Your task to perform on an android device: turn on javascript in the chrome app Image 0: 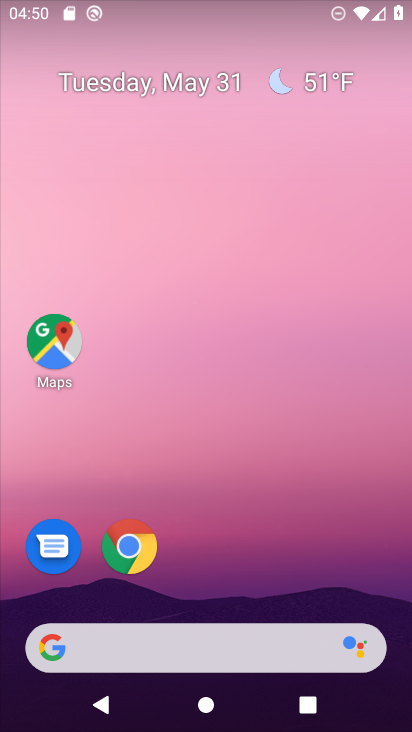
Step 0: click (133, 557)
Your task to perform on an android device: turn on javascript in the chrome app Image 1: 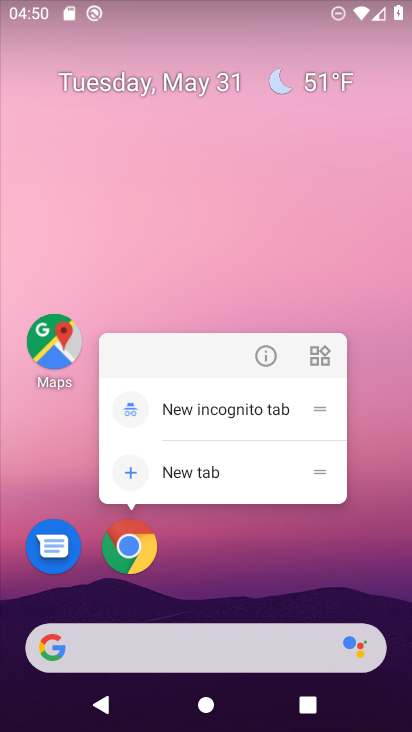
Step 1: click (132, 544)
Your task to perform on an android device: turn on javascript in the chrome app Image 2: 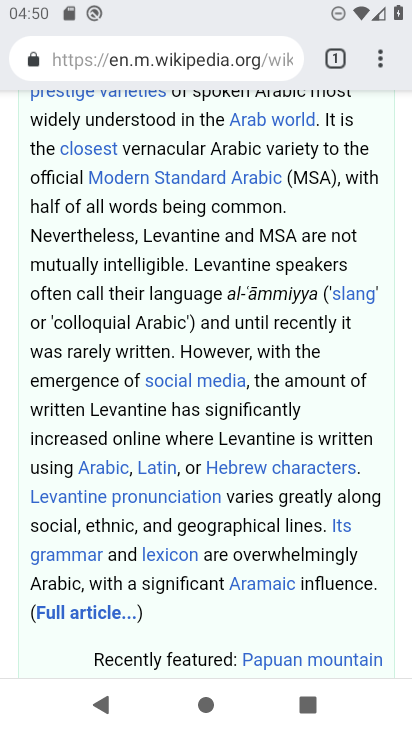
Step 2: click (377, 58)
Your task to perform on an android device: turn on javascript in the chrome app Image 3: 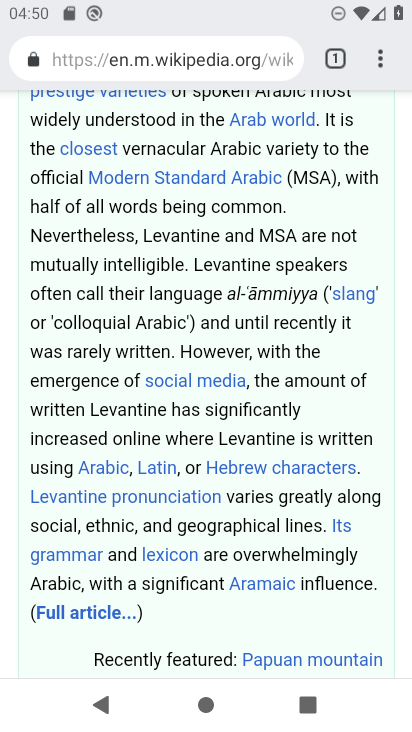
Step 3: click (384, 65)
Your task to perform on an android device: turn on javascript in the chrome app Image 4: 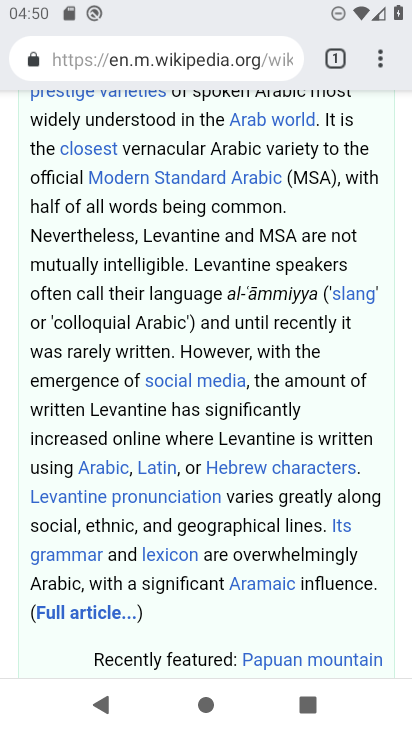
Step 4: click (380, 62)
Your task to perform on an android device: turn on javascript in the chrome app Image 5: 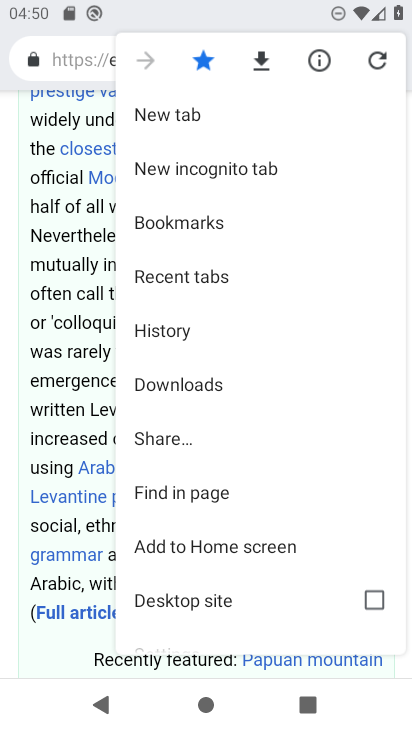
Step 5: drag from (178, 608) to (222, 309)
Your task to perform on an android device: turn on javascript in the chrome app Image 6: 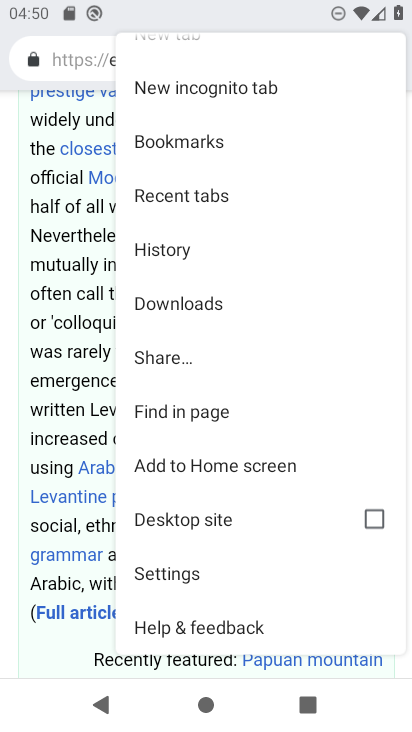
Step 6: click (171, 582)
Your task to perform on an android device: turn on javascript in the chrome app Image 7: 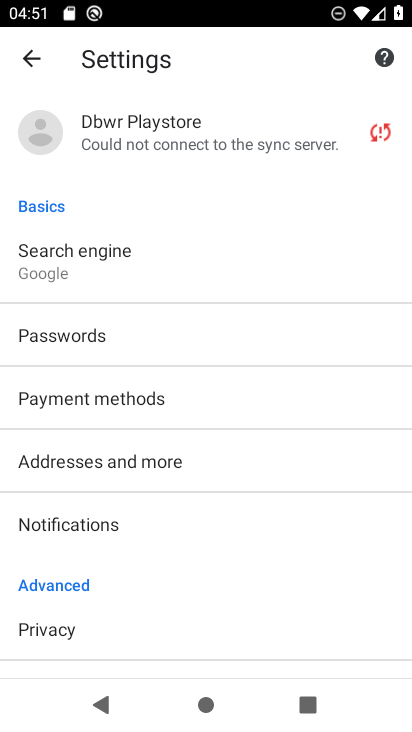
Step 7: drag from (99, 597) to (160, 340)
Your task to perform on an android device: turn on javascript in the chrome app Image 8: 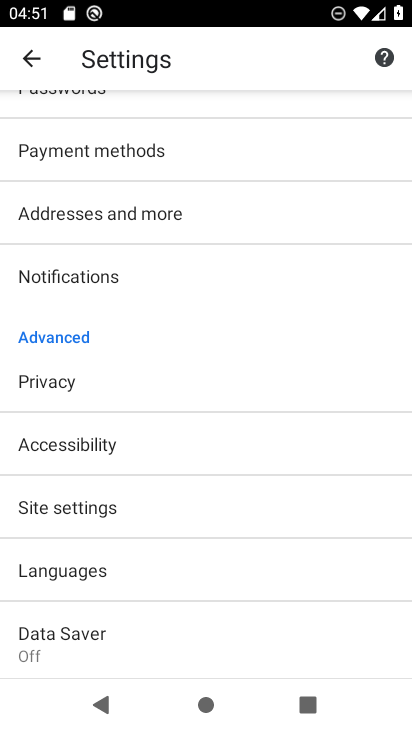
Step 8: click (77, 508)
Your task to perform on an android device: turn on javascript in the chrome app Image 9: 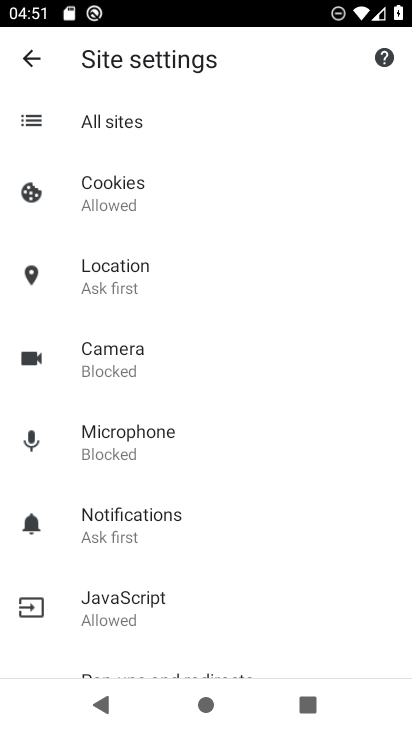
Step 9: drag from (166, 544) to (185, 369)
Your task to perform on an android device: turn on javascript in the chrome app Image 10: 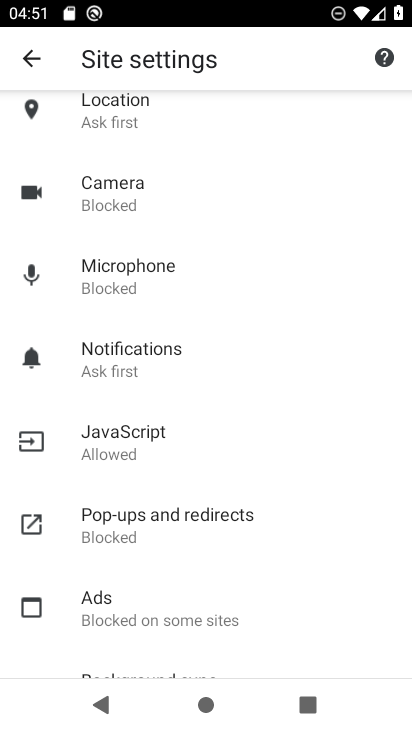
Step 10: click (152, 444)
Your task to perform on an android device: turn on javascript in the chrome app Image 11: 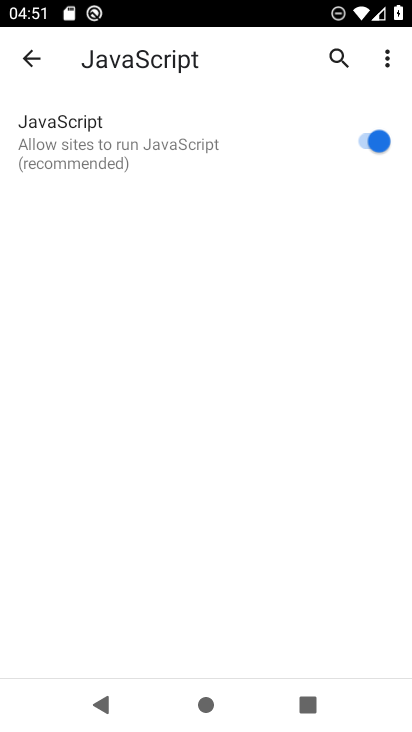
Step 11: task complete